Your task to perform on an android device: toggle javascript in the chrome app Image 0: 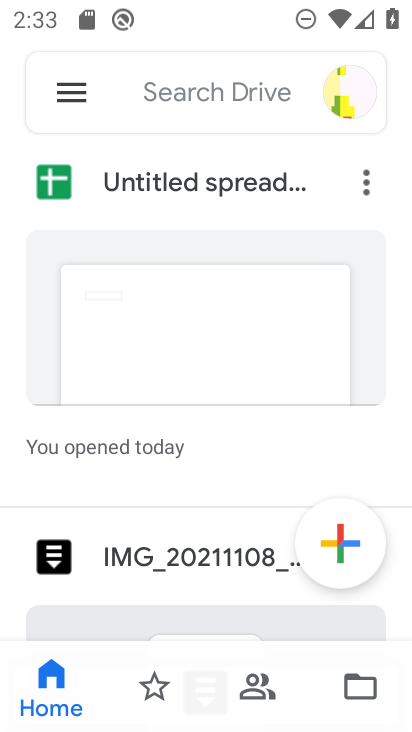
Step 0: press home button
Your task to perform on an android device: toggle javascript in the chrome app Image 1: 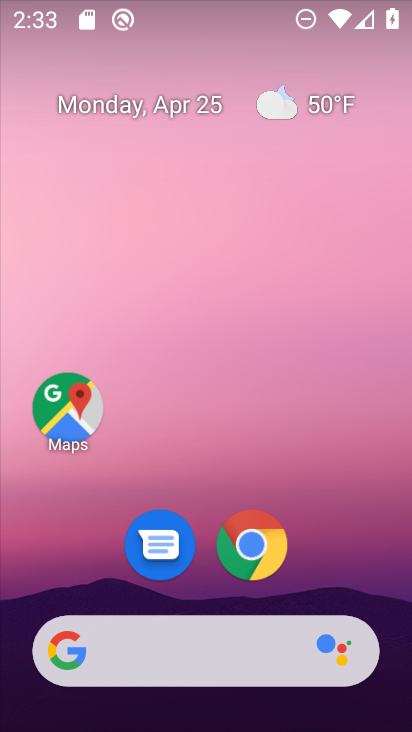
Step 1: click (266, 538)
Your task to perform on an android device: toggle javascript in the chrome app Image 2: 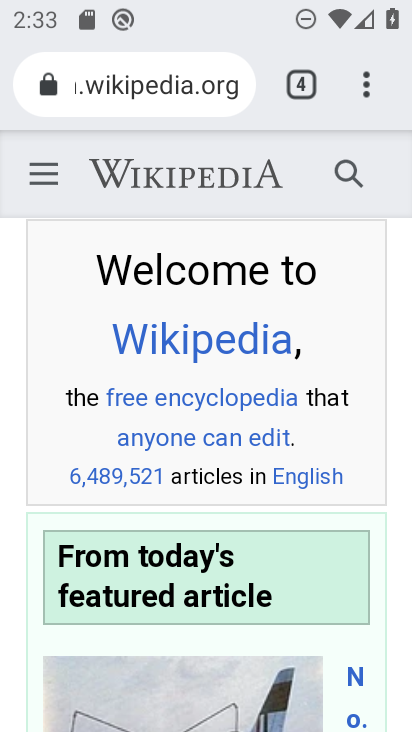
Step 2: click (369, 85)
Your task to perform on an android device: toggle javascript in the chrome app Image 3: 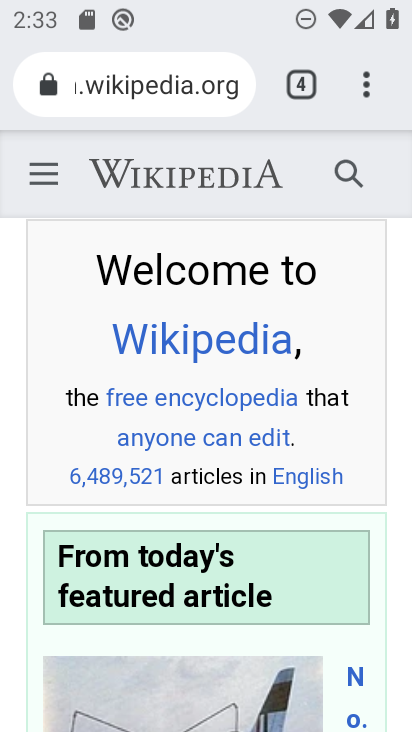
Step 3: click (369, 86)
Your task to perform on an android device: toggle javascript in the chrome app Image 4: 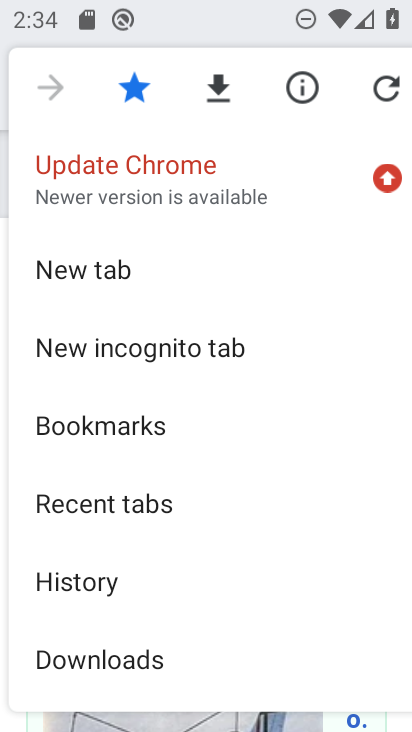
Step 4: drag from (197, 588) to (186, 185)
Your task to perform on an android device: toggle javascript in the chrome app Image 5: 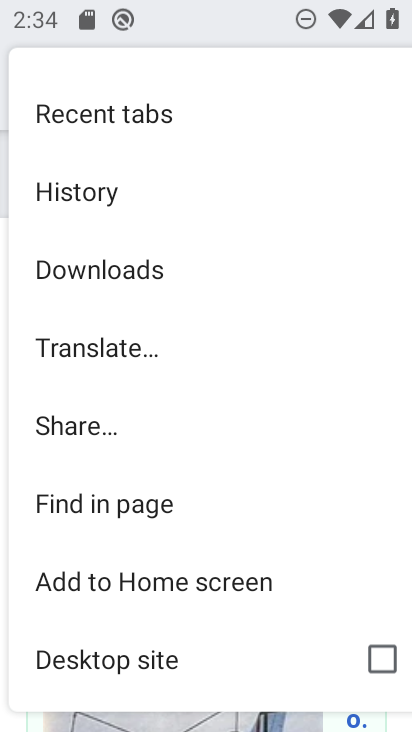
Step 5: drag from (205, 520) to (175, 259)
Your task to perform on an android device: toggle javascript in the chrome app Image 6: 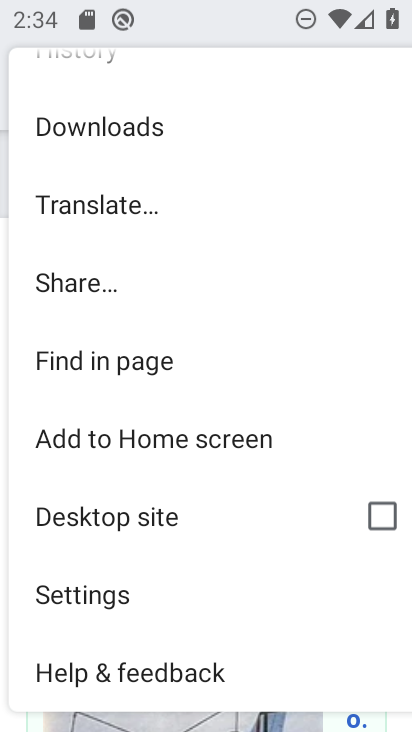
Step 6: click (163, 593)
Your task to perform on an android device: toggle javascript in the chrome app Image 7: 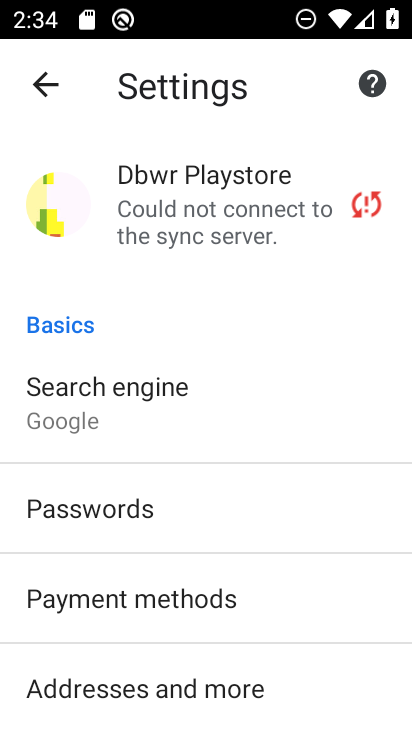
Step 7: drag from (216, 626) to (233, 225)
Your task to perform on an android device: toggle javascript in the chrome app Image 8: 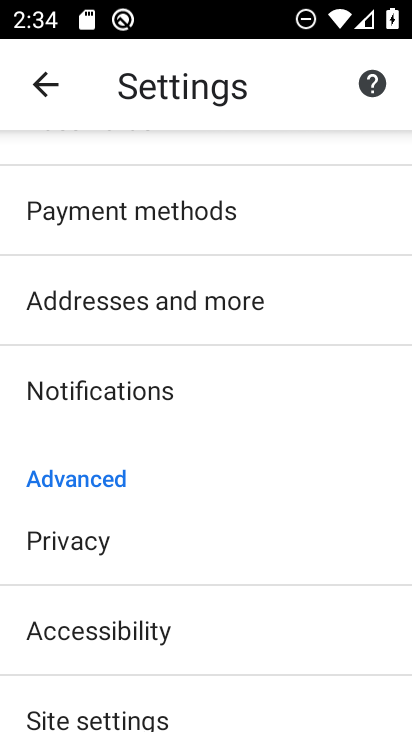
Step 8: click (189, 684)
Your task to perform on an android device: toggle javascript in the chrome app Image 9: 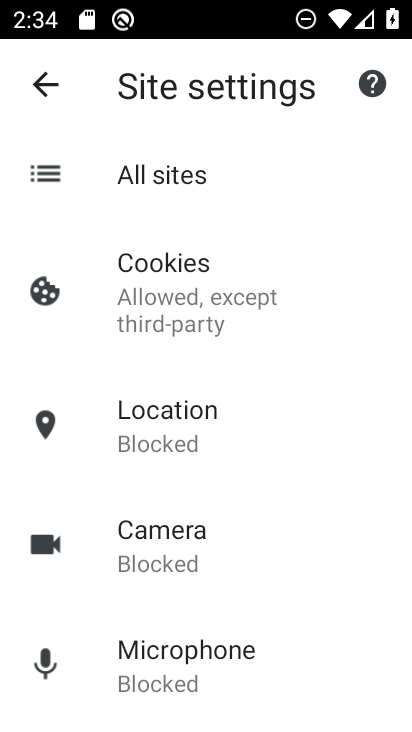
Step 9: drag from (230, 602) to (249, 118)
Your task to perform on an android device: toggle javascript in the chrome app Image 10: 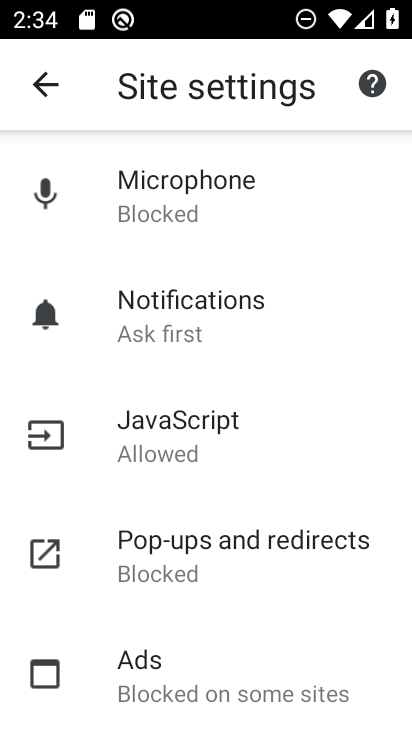
Step 10: click (184, 442)
Your task to perform on an android device: toggle javascript in the chrome app Image 11: 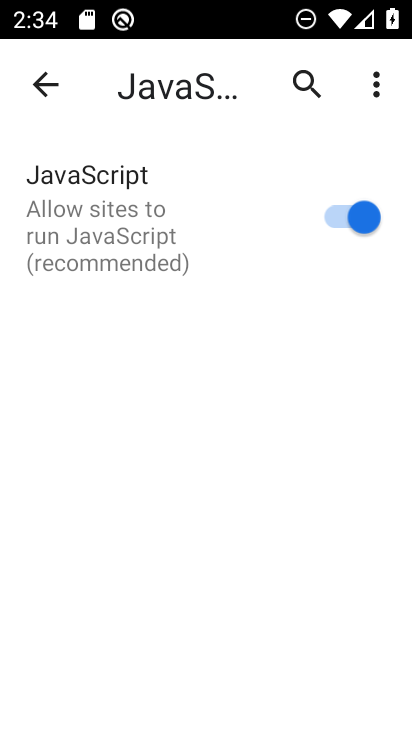
Step 11: task complete